Your task to perform on an android device: turn on wifi Image 0: 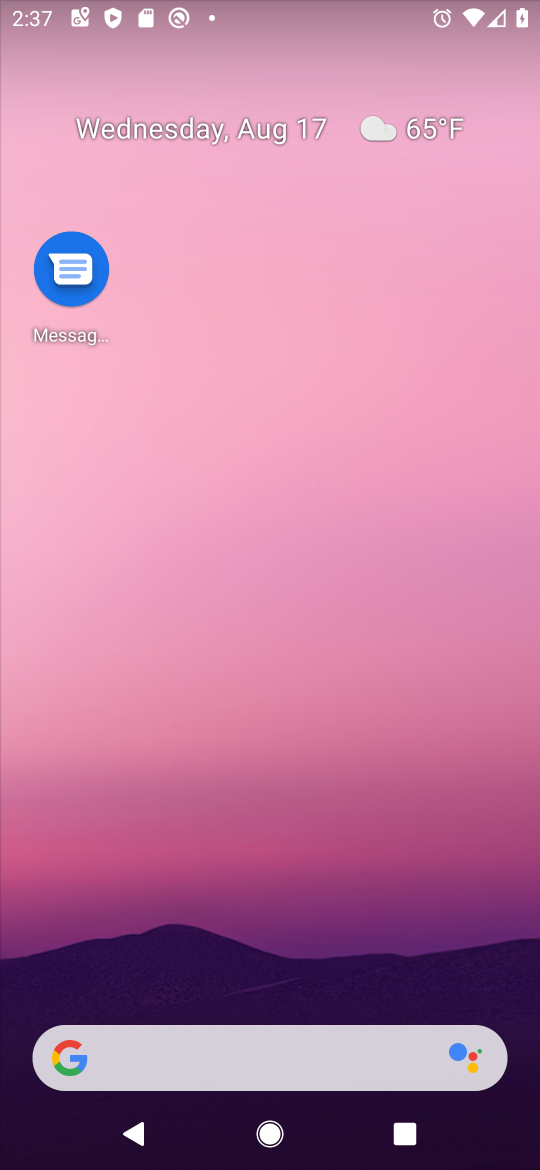
Step 0: drag from (298, 890) to (239, 99)
Your task to perform on an android device: turn on wifi Image 1: 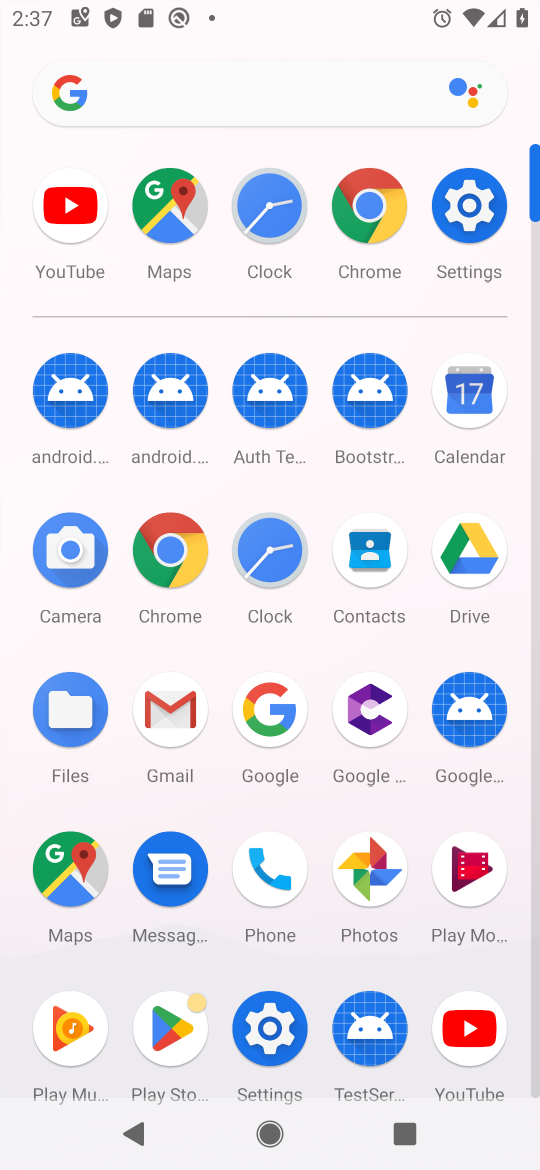
Step 1: click (469, 234)
Your task to perform on an android device: turn on wifi Image 2: 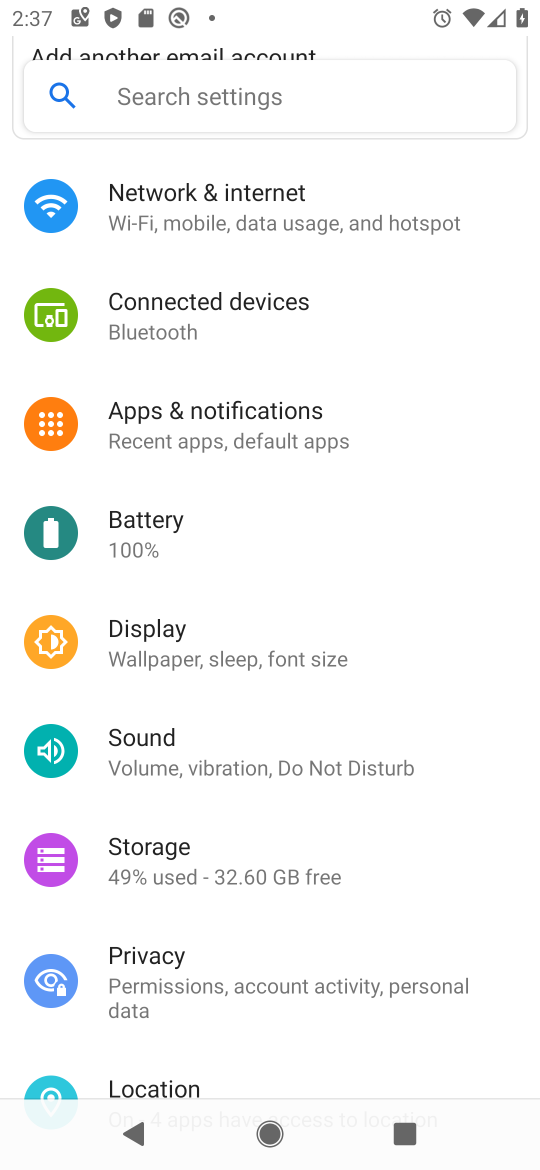
Step 2: click (162, 232)
Your task to perform on an android device: turn on wifi Image 3: 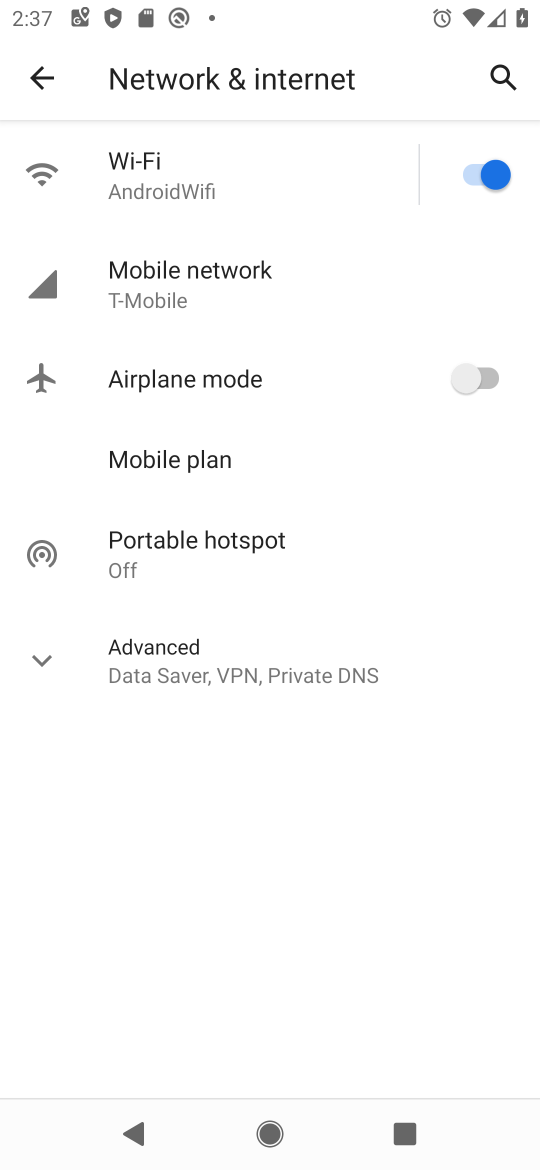
Step 3: click (129, 204)
Your task to perform on an android device: turn on wifi Image 4: 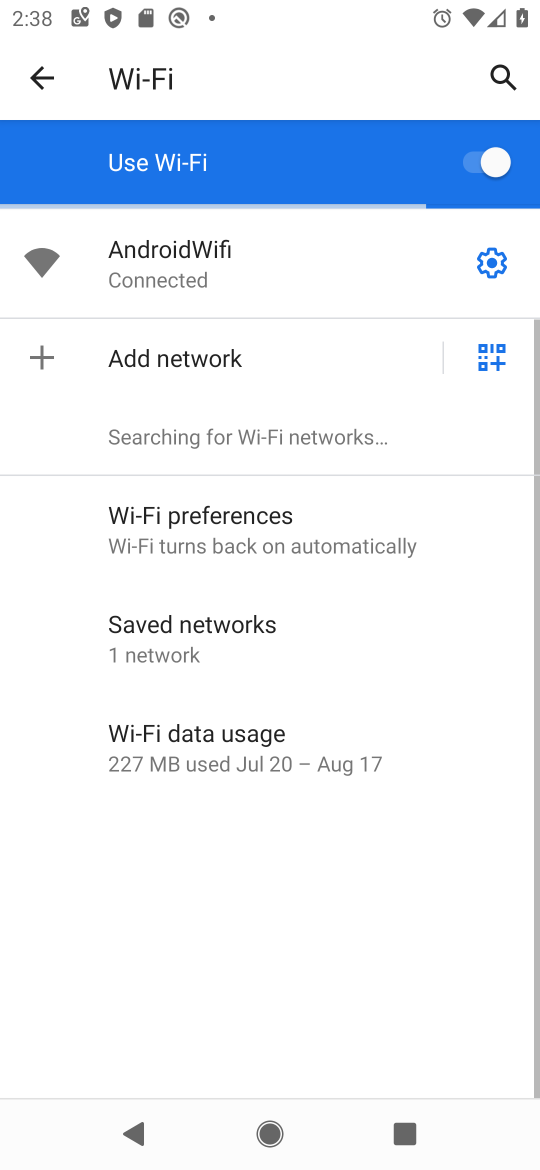
Step 4: task complete